Your task to perform on an android device: toggle wifi Image 0: 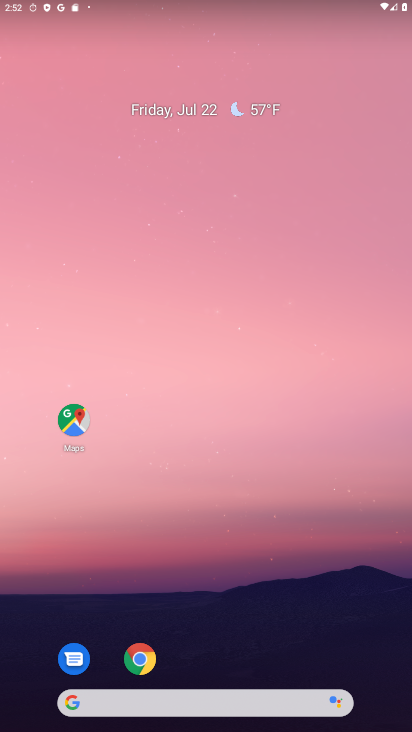
Step 0: drag from (337, 601) to (383, 3)
Your task to perform on an android device: toggle wifi Image 1: 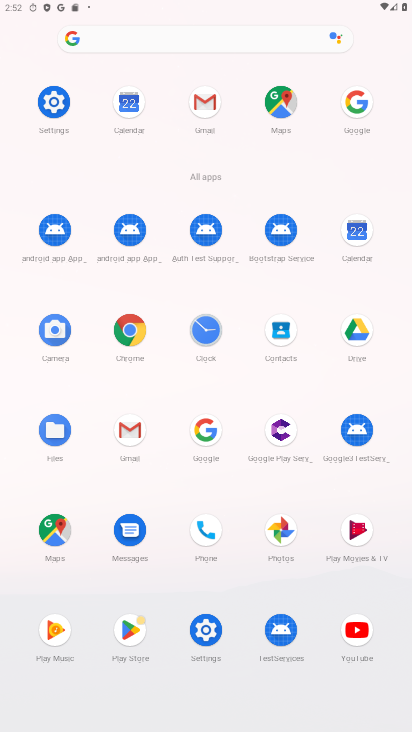
Step 1: click (47, 101)
Your task to perform on an android device: toggle wifi Image 2: 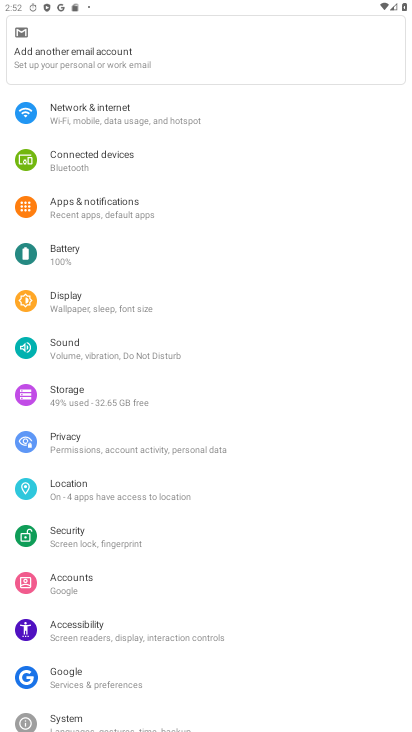
Step 2: click (135, 120)
Your task to perform on an android device: toggle wifi Image 3: 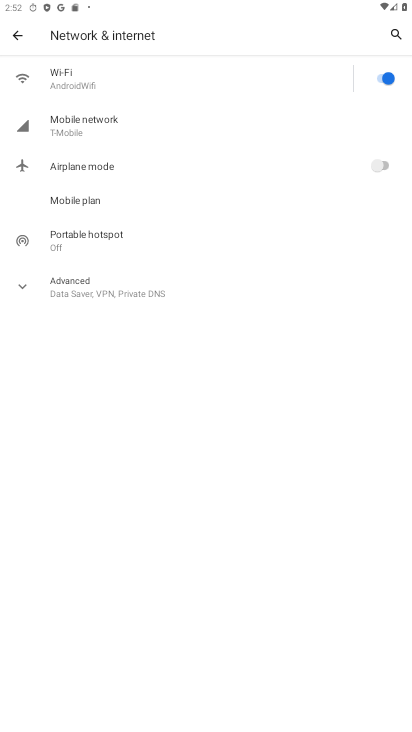
Step 3: click (371, 79)
Your task to perform on an android device: toggle wifi Image 4: 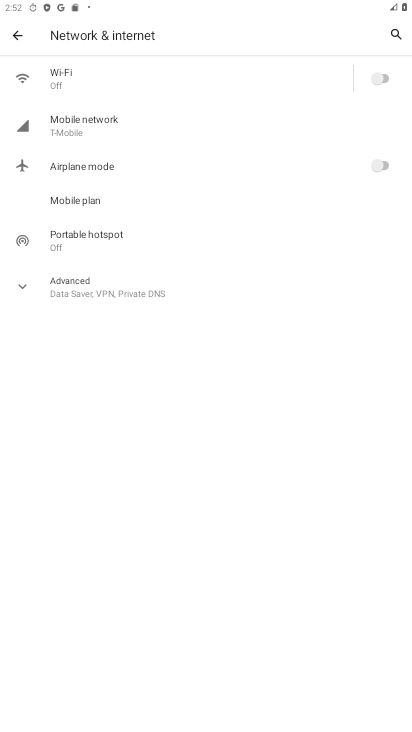
Step 4: task complete